Your task to perform on an android device: change the clock display to show seconds Image 0: 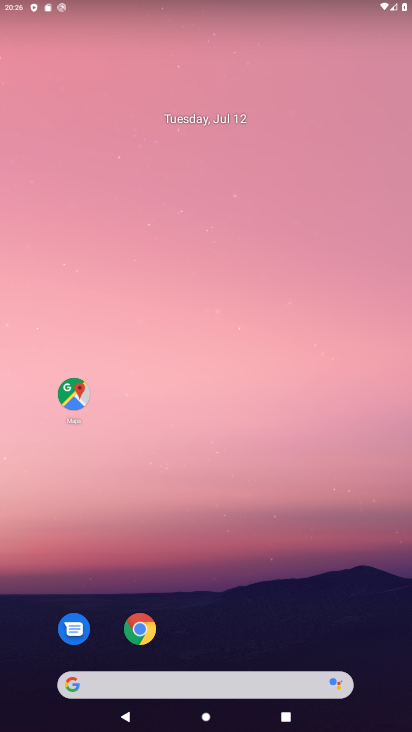
Step 0: drag from (219, 545) to (197, 56)
Your task to perform on an android device: change the clock display to show seconds Image 1: 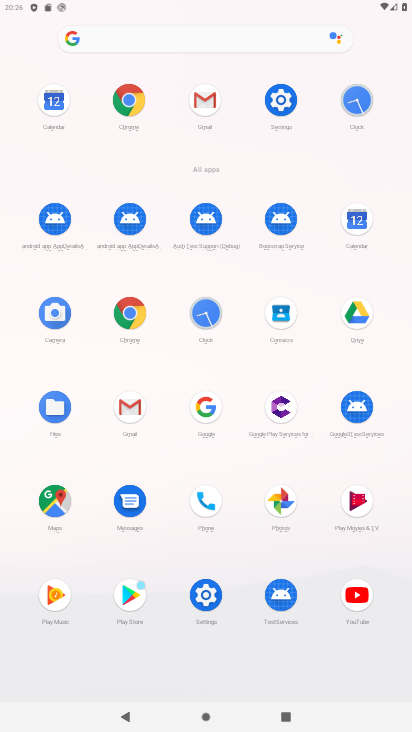
Step 1: click (358, 108)
Your task to perform on an android device: change the clock display to show seconds Image 2: 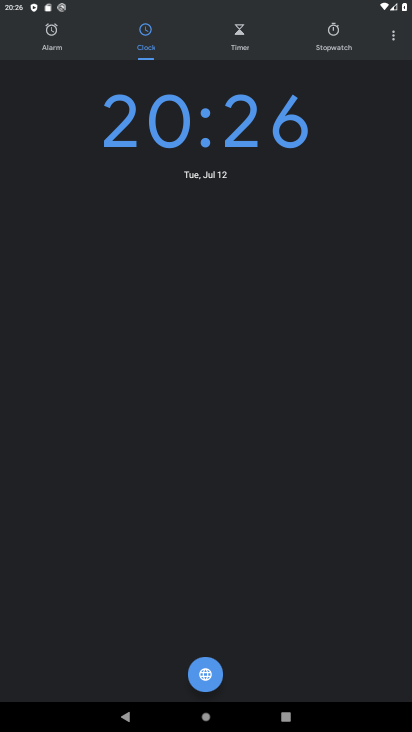
Step 2: click (394, 39)
Your task to perform on an android device: change the clock display to show seconds Image 3: 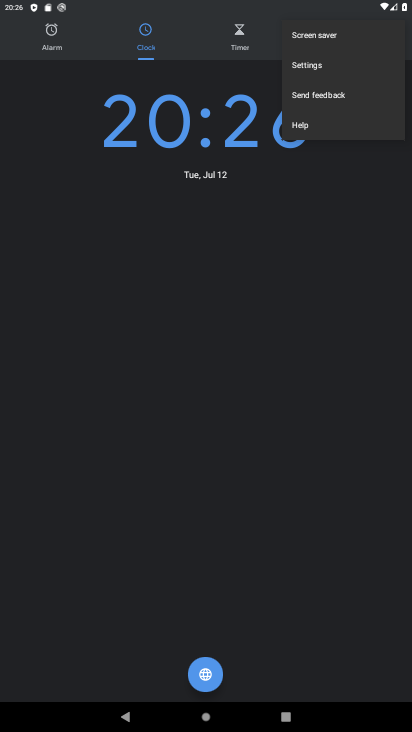
Step 3: click (332, 70)
Your task to perform on an android device: change the clock display to show seconds Image 4: 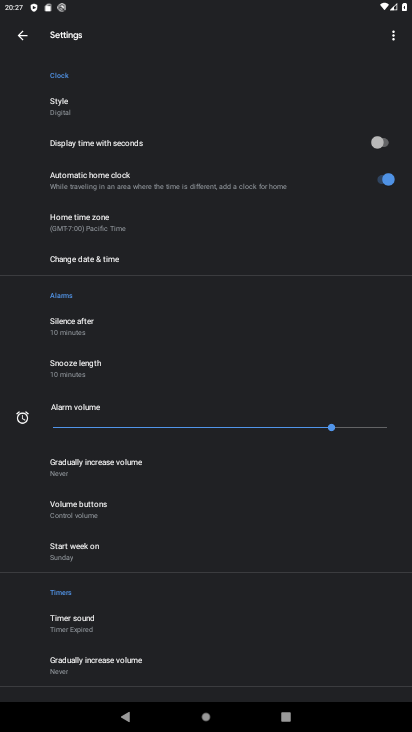
Step 4: click (381, 143)
Your task to perform on an android device: change the clock display to show seconds Image 5: 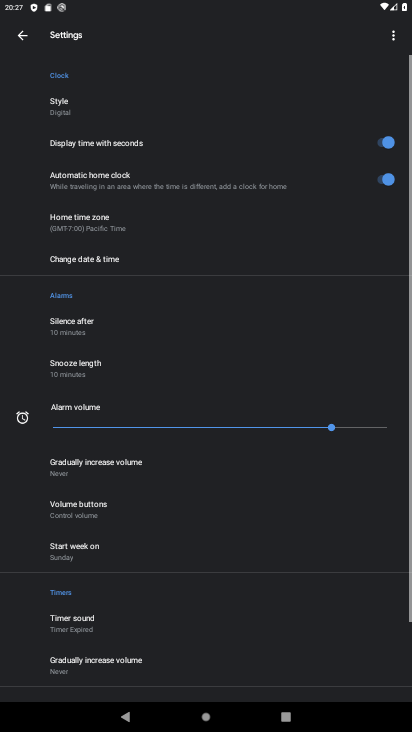
Step 5: task complete